Your task to perform on an android device: Open Maps and search for coffee Image 0: 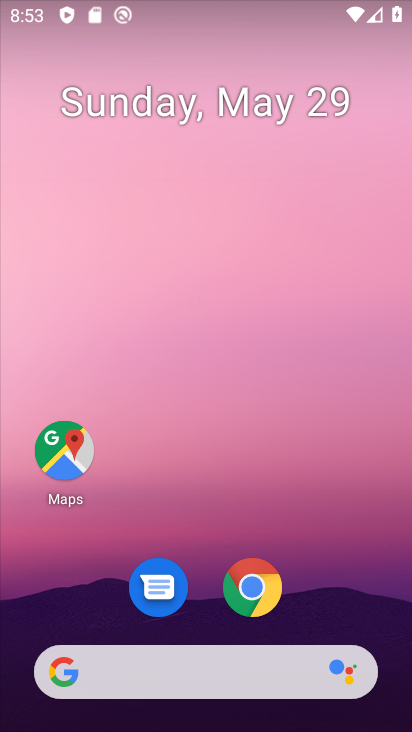
Step 0: click (191, 127)
Your task to perform on an android device: Open Maps and search for coffee Image 1: 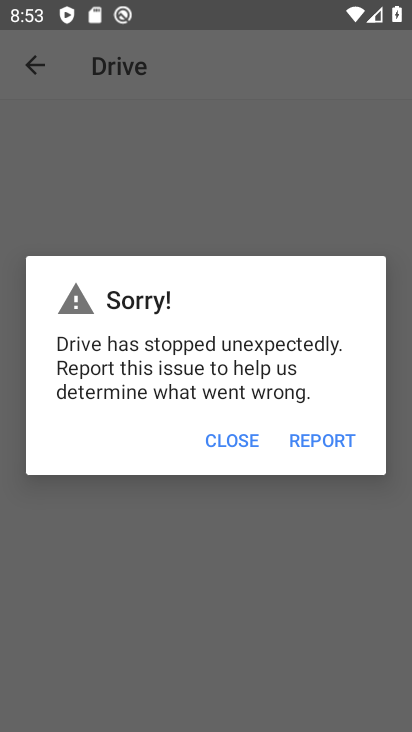
Step 1: drag from (220, 549) to (276, 18)
Your task to perform on an android device: Open Maps and search for coffee Image 2: 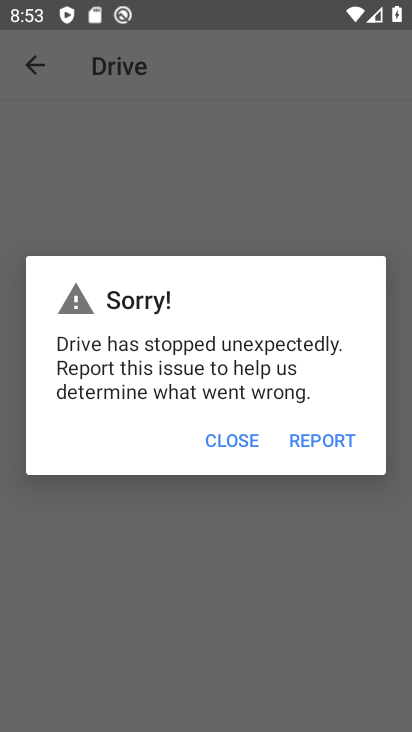
Step 2: press home button
Your task to perform on an android device: Open Maps and search for coffee Image 3: 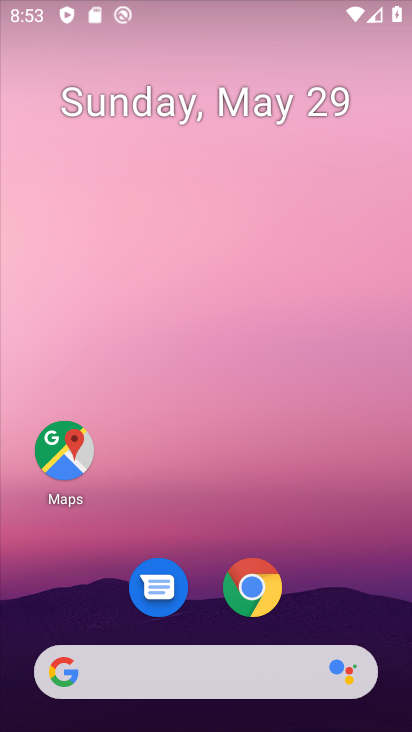
Step 3: drag from (180, 421) to (234, 0)
Your task to perform on an android device: Open Maps and search for coffee Image 4: 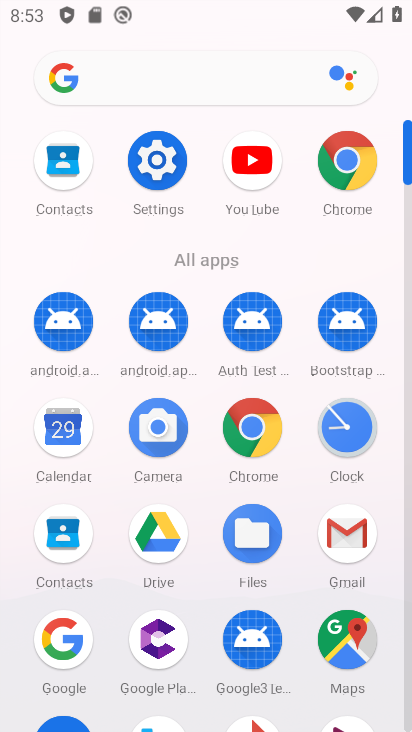
Step 4: click (372, 646)
Your task to perform on an android device: Open Maps and search for coffee Image 5: 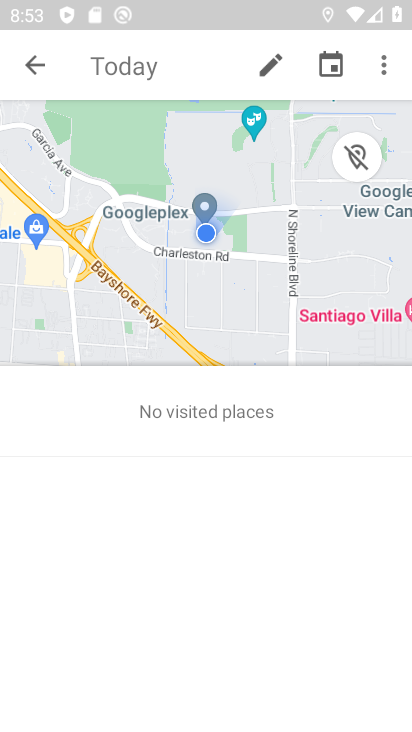
Step 5: click (42, 64)
Your task to perform on an android device: Open Maps and search for coffee Image 6: 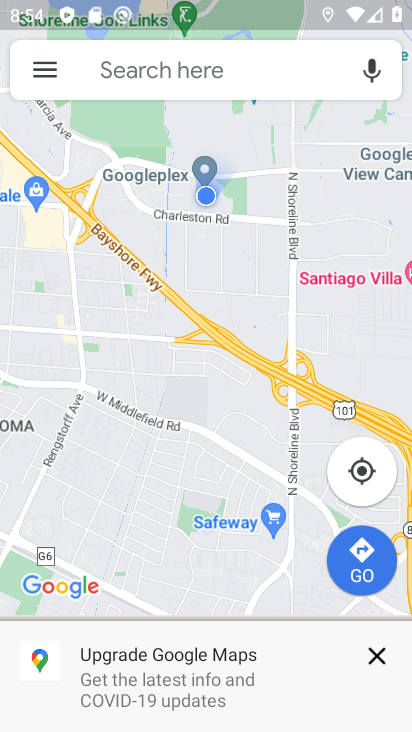
Step 6: click (132, 77)
Your task to perform on an android device: Open Maps and search for coffee Image 7: 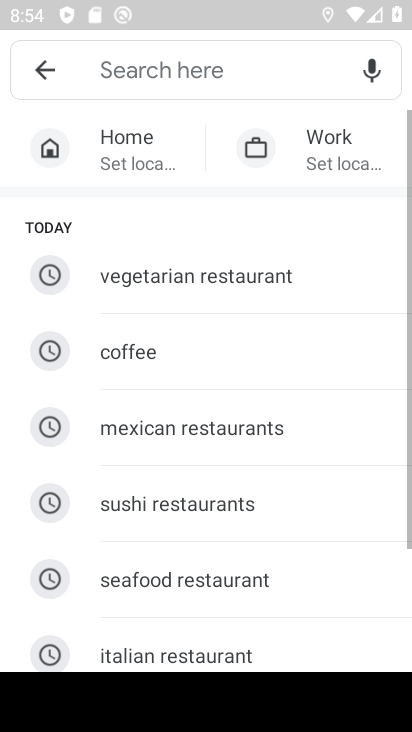
Step 7: click (128, 355)
Your task to perform on an android device: Open Maps and search for coffee Image 8: 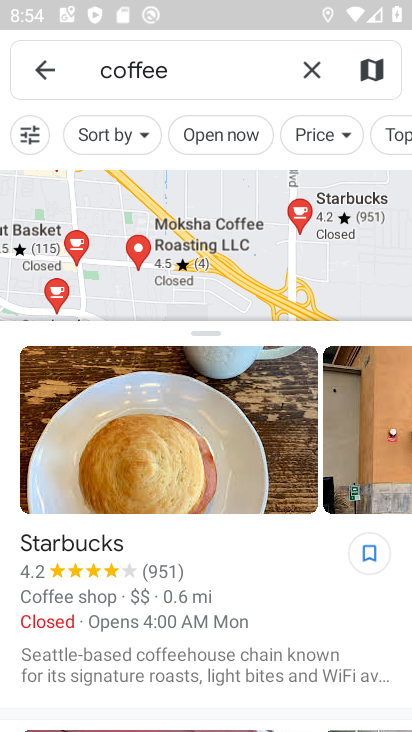
Step 8: task complete